Your task to perform on an android device: delete a single message in the gmail app Image 0: 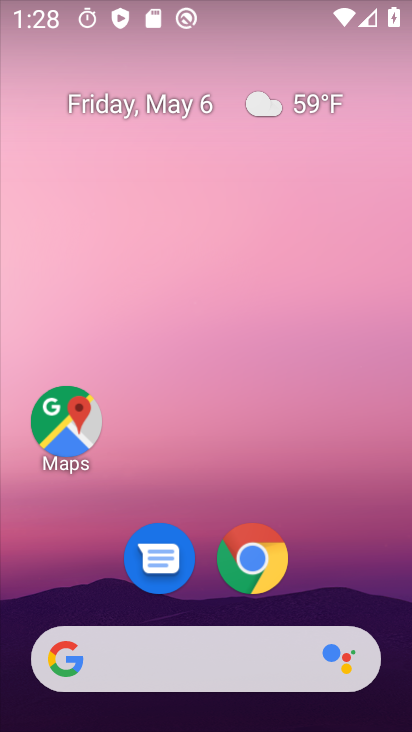
Step 0: drag from (215, 728) to (205, 245)
Your task to perform on an android device: delete a single message in the gmail app Image 1: 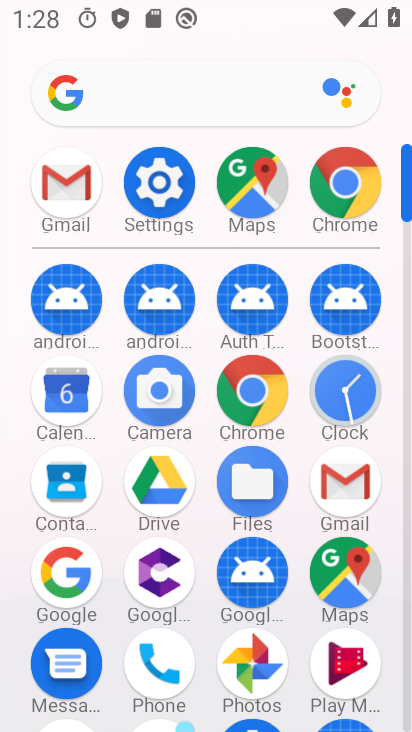
Step 1: click (351, 468)
Your task to perform on an android device: delete a single message in the gmail app Image 2: 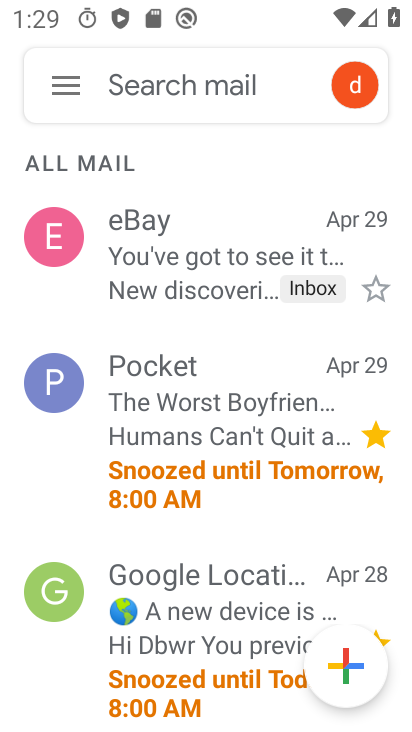
Step 2: click (187, 271)
Your task to perform on an android device: delete a single message in the gmail app Image 3: 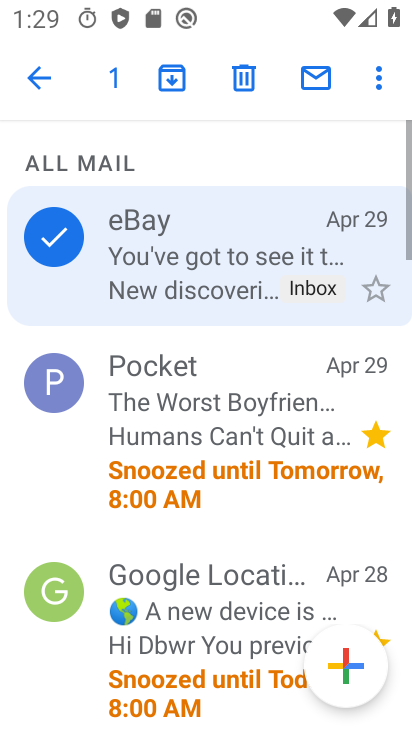
Step 3: click (242, 60)
Your task to perform on an android device: delete a single message in the gmail app Image 4: 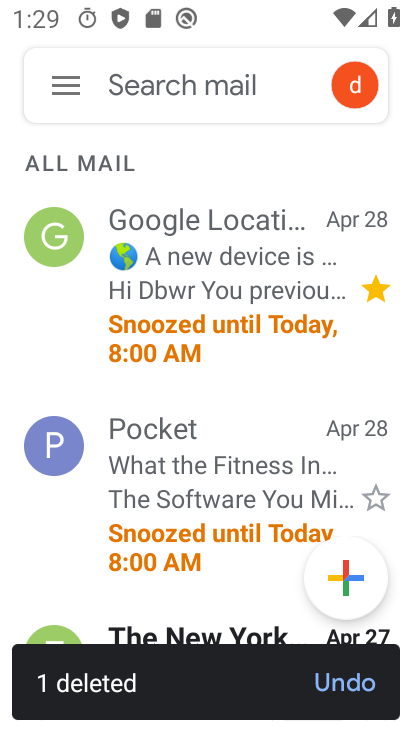
Step 4: task complete